Your task to perform on an android device: Open Yahoo.com Image 0: 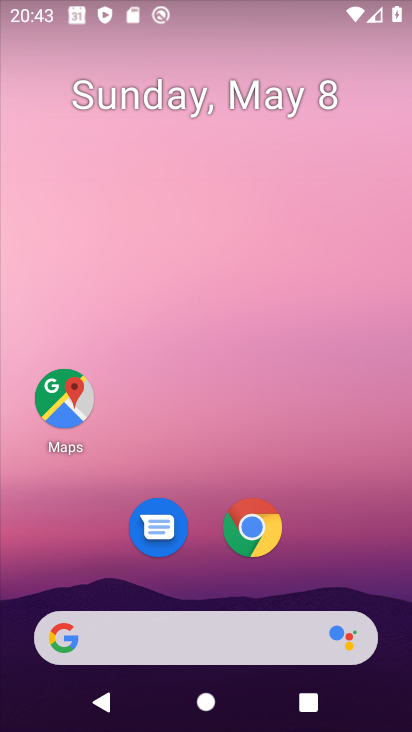
Step 0: drag from (220, 568) to (203, 110)
Your task to perform on an android device: Open Yahoo.com Image 1: 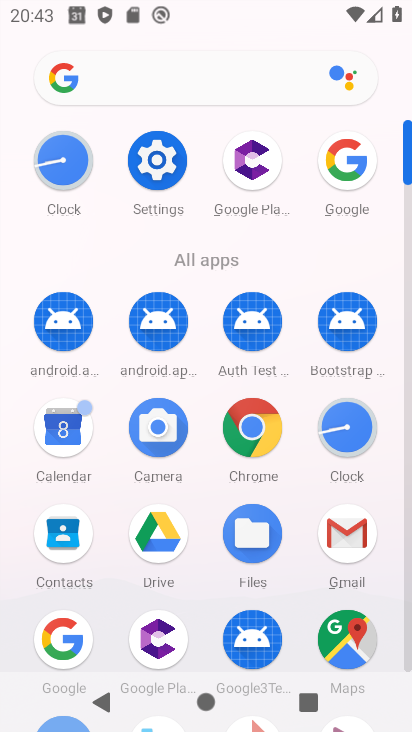
Step 1: click (253, 427)
Your task to perform on an android device: Open Yahoo.com Image 2: 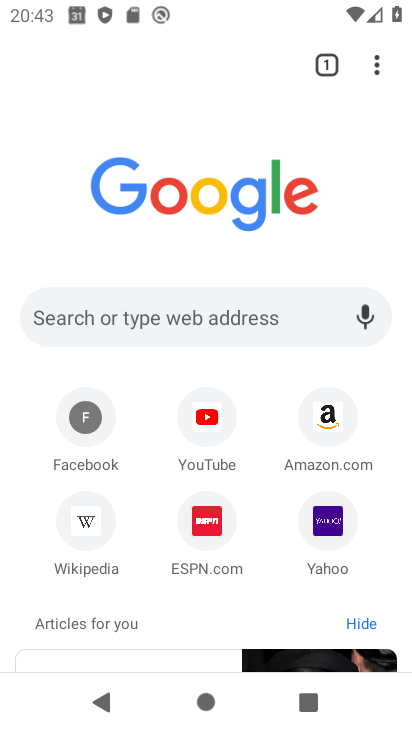
Step 2: click (330, 523)
Your task to perform on an android device: Open Yahoo.com Image 3: 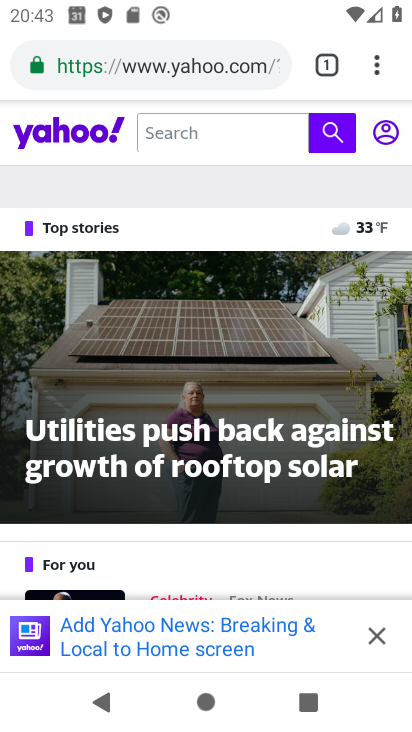
Step 3: task complete